Your task to perform on an android device: When is my next meeting? Image 0: 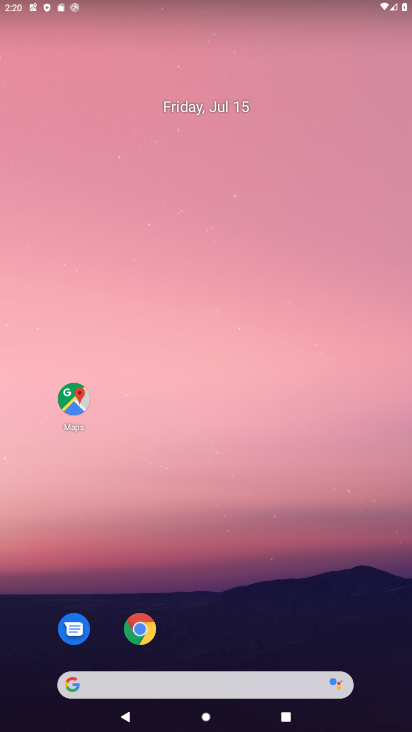
Step 0: drag from (247, 620) to (214, 122)
Your task to perform on an android device: When is my next meeting? Image 1: 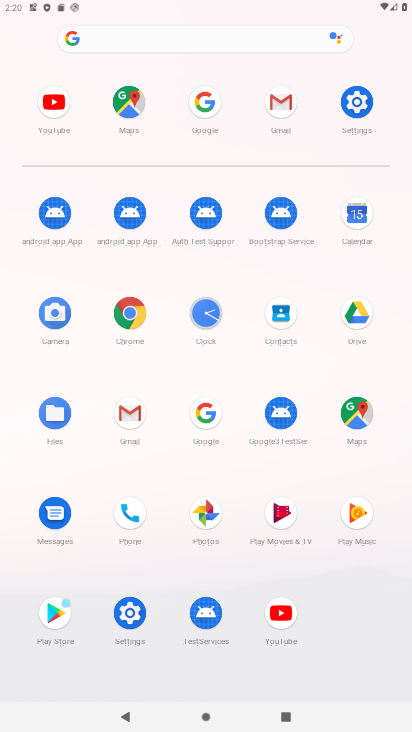
Step 1: click (358, 215)
Your task to perform on an android device: When is my next meeting? Image 2: 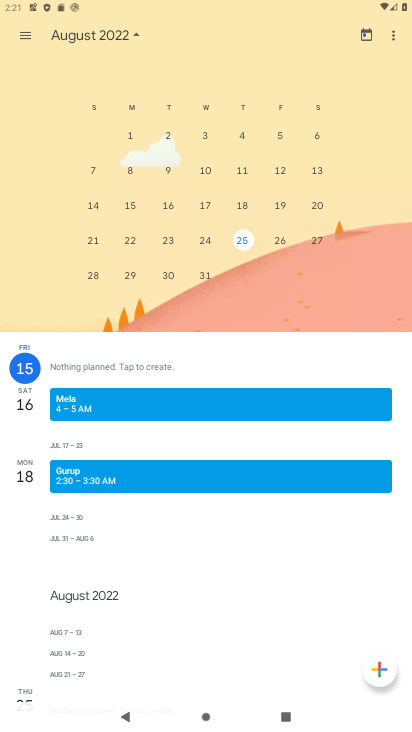
Step 2: click (284, 238)
Your task to perform on an android device: When is my next meeting? Image 3: 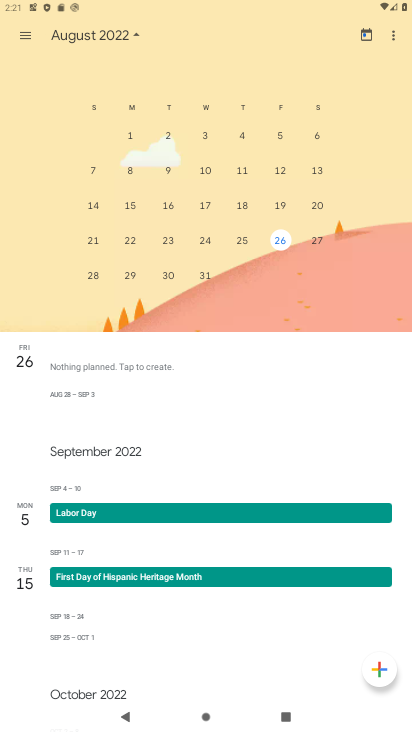
Step 3: task complete